Your task to perform on an android device: open the mobile data screen to see how much data has been used Image 0: 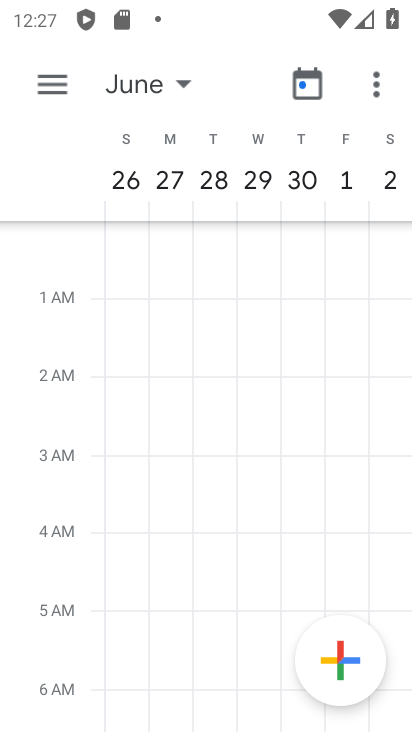
Step 0: press home button
Your task to perform on an android device: open the mobile data screen to see how much data has been used Image 1: 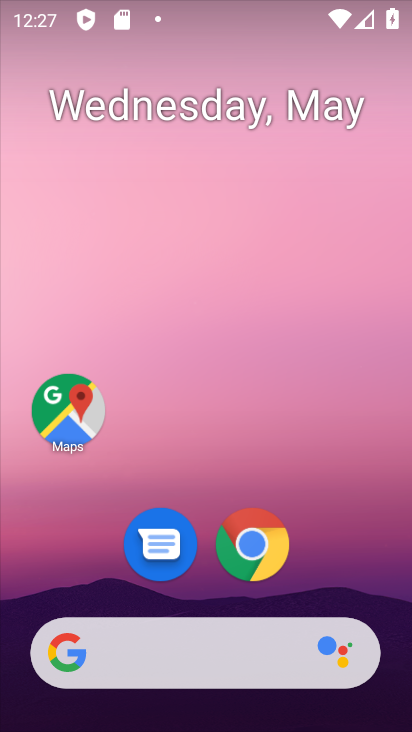
Step 1: drag from (354, 595) to (281, 143)
Your task to perform on an android device: open the mobile data screen to see how much data has been used Image 2: 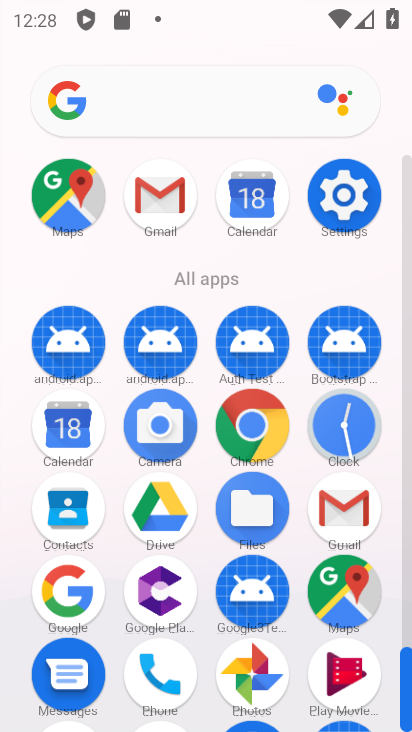
Step 2: click (340, 191)
Your task to perform on an android device: open the mobile data screen to see how much data has been used Image 3: 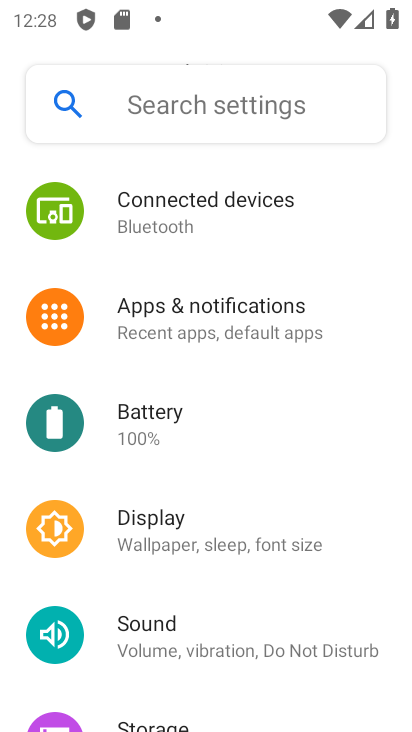
Step 3: drag from (221, 330) to (204, 716)
Your task to perform on an android device: open the mobile data screen to see how much data has been used Image 4: 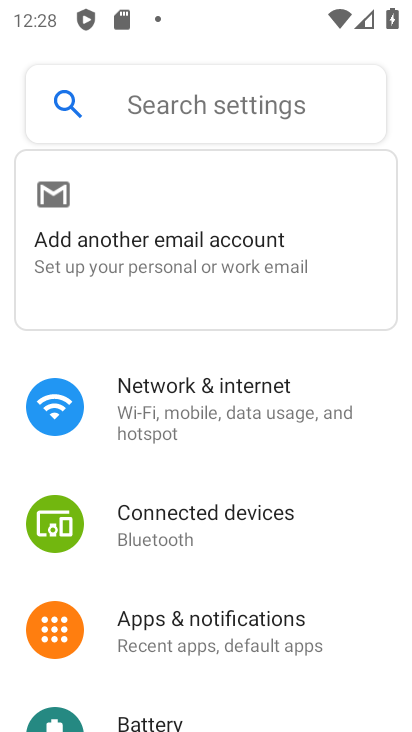
Step 4: drag from (219, 582) to (269, 188)
Your task to perform on an android device: open the mobile data screen to see how much data has been used Image 5: 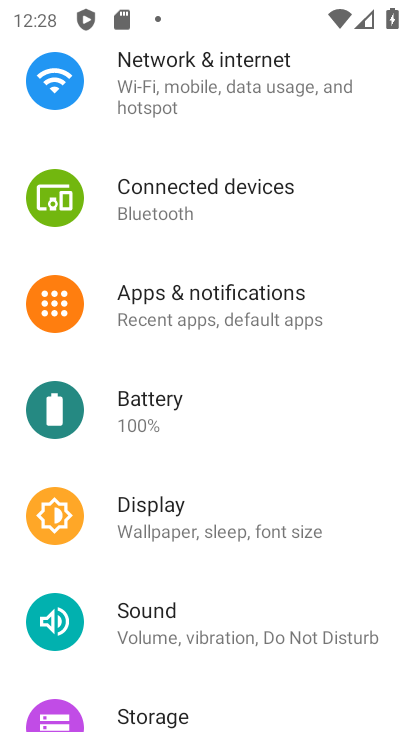
Step 5: drag from (234, 539) to (294, 285)
Your task to perform on an android device: open the mobile data screen to see how much data has been used Image 6: 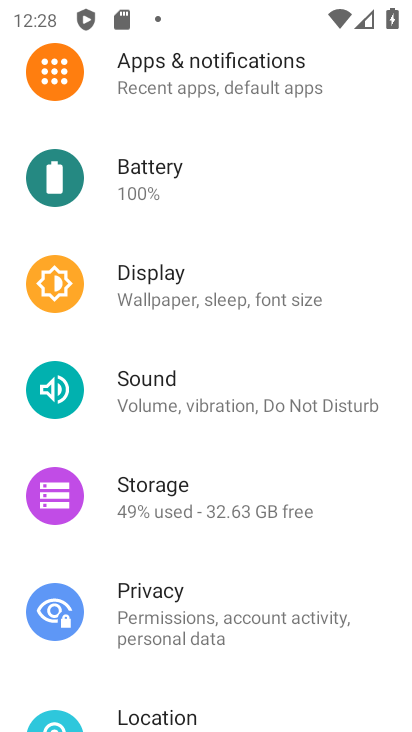
Step 6: drag from (205, 474) to (310, 276)
Your task to perform on an android device: open the mobile data screen to see how much data has been used Image 7: 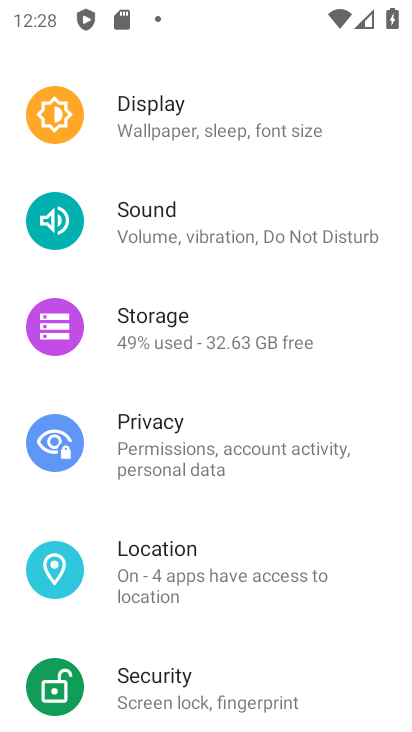
Step 7: drag from (202, 236) to (316, 723)
Your task to perform on an android device: open the mobile data screen to see how much data has been used Image 8: 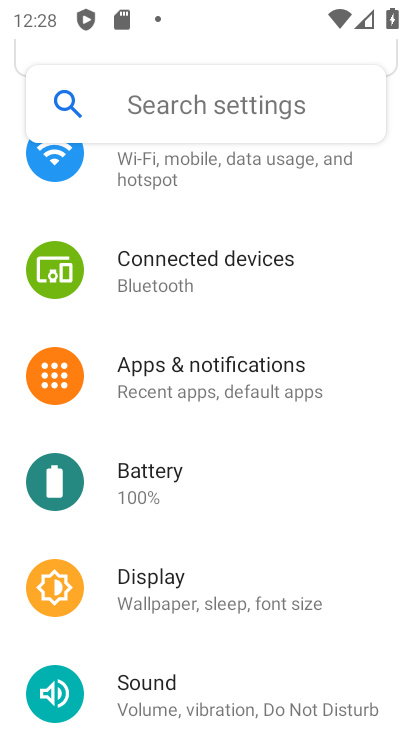
Step 8: drag from (226, 180) to (278, 659)
Your task to perform on an android device: open the mobile data screen to see how much data has been used Image 9: 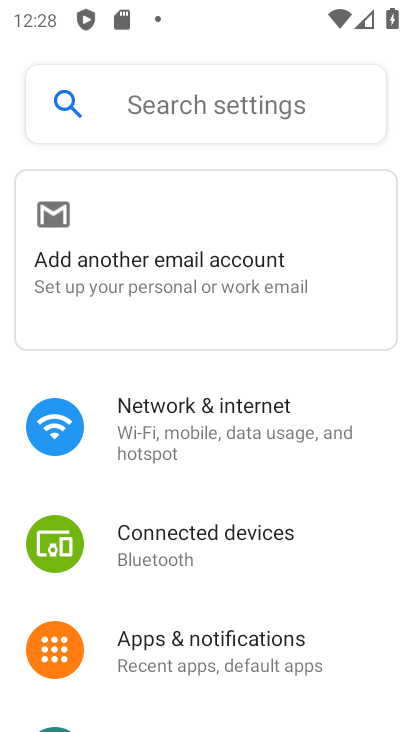
Step 9: click (202, 403)
Your task to perform on an android device: open the mobile data screen to see how much data has been used Image 10: 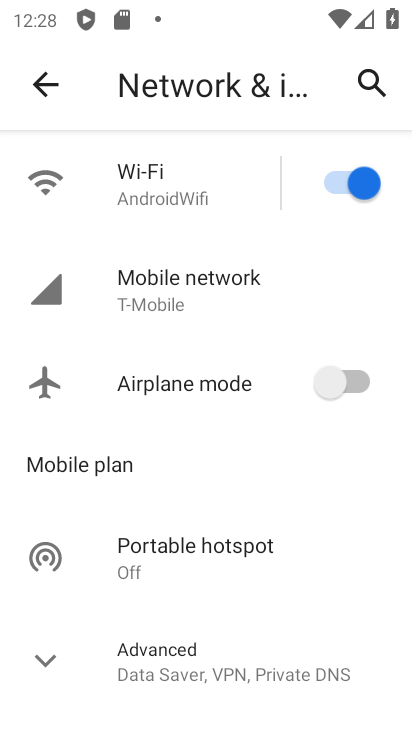
Step 10: click (243, 259)
Your task to perform on an android device: open the mobile data screen to see how much data has been used Image 11: 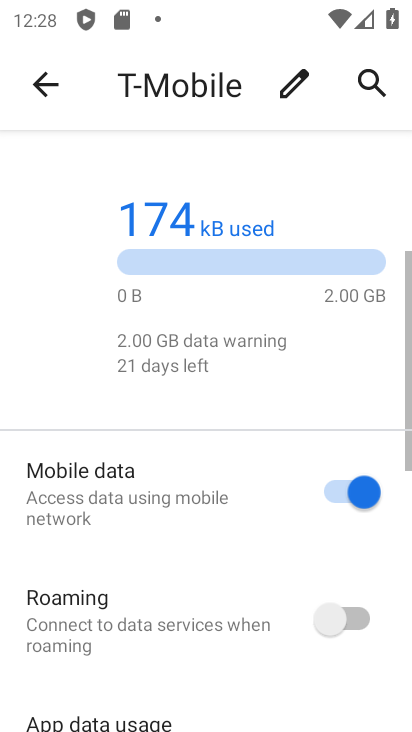
Step 11: task complete